Your task to perform on an android device: Open calendar and show me the second week of next month Image 0: 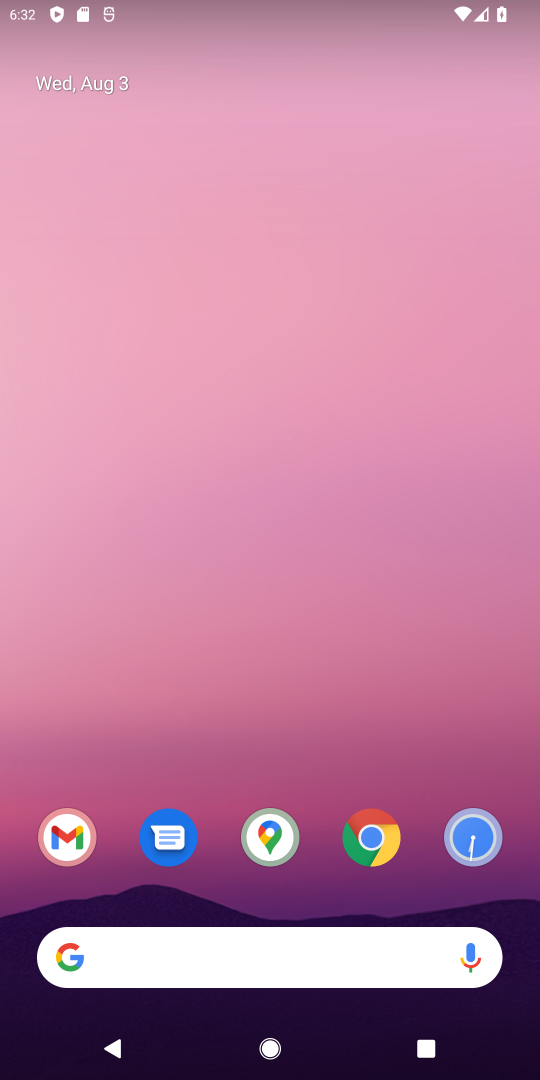
Step 0: press home button
Your task to perform on an android device: Open calendar and show me the second week of next month Image 1: 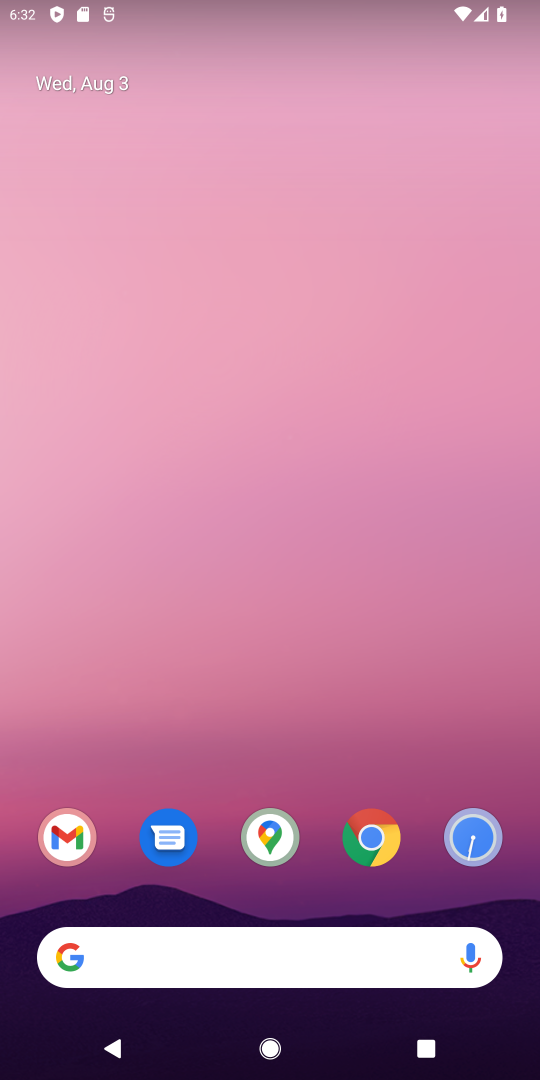
Step 1: drag from (334, 777) to (533, 412)
Your task to perform on an android device: Open calendar and show me the second week of next month Image 2: 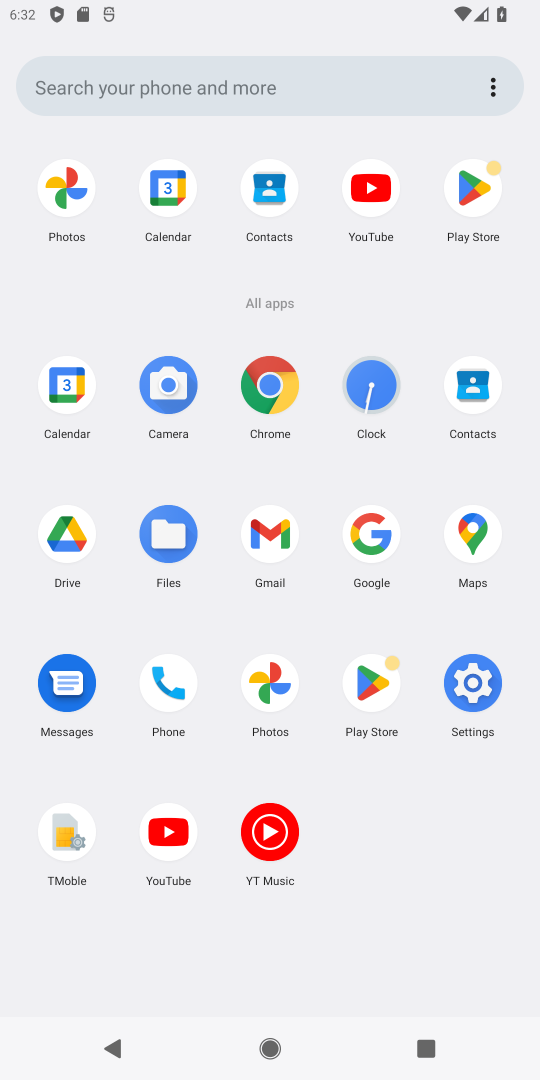
Step 2: click (69, 377)
Your task to perform on an android device: Open calendar and show me the second week of next month Image 3: 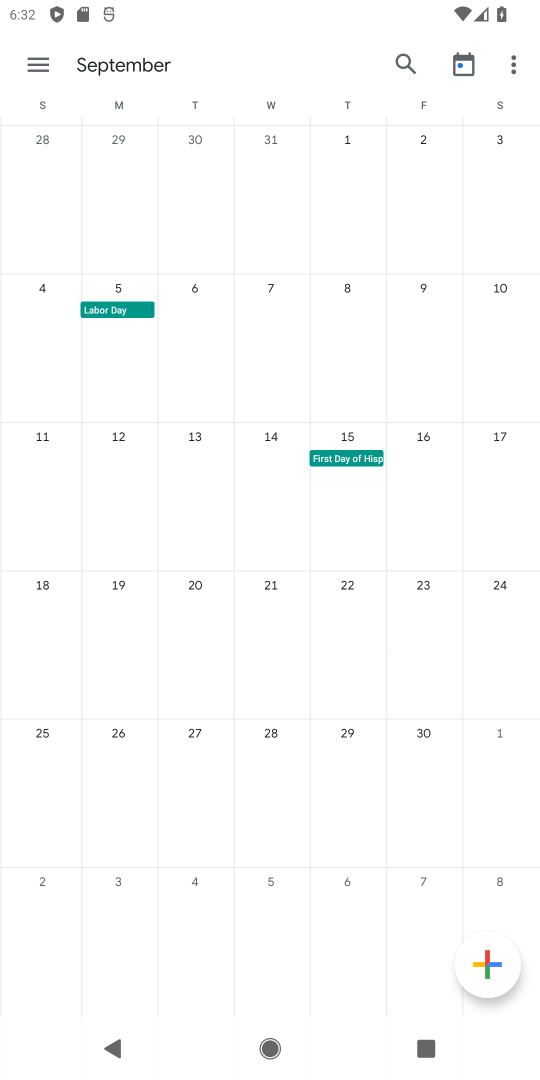
Step 3: task complete